Your task to perform on an android device: search for starred emails in the gmail app Image 0: 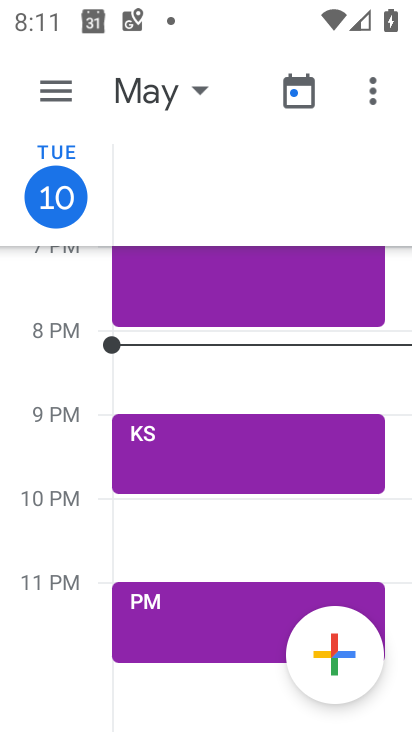
Step 0: drag from (288, 566) to (286, 410)
Your task to perform on an android device: search for starred emails in the gmail app Image 1: 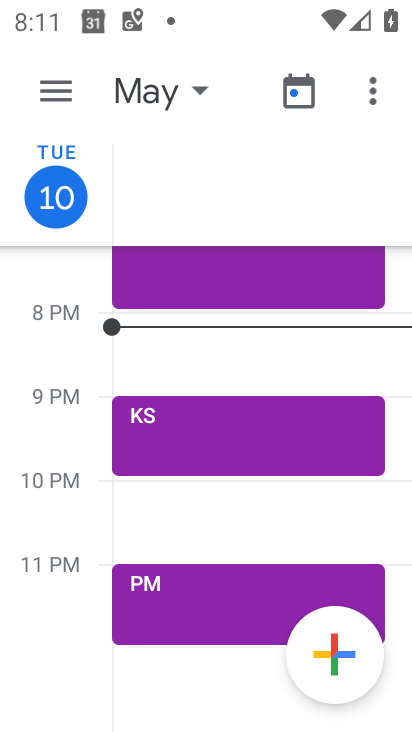
Step 1: press home button
Your task to perform on an android device: search for starred emails in the gmail app Image 2: 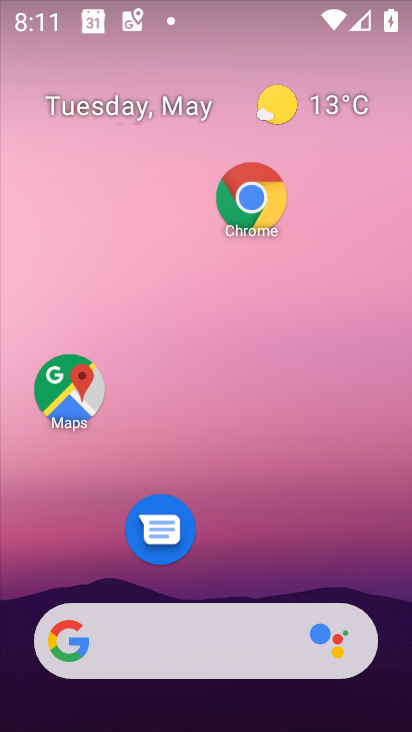
Step 2: drag from (273, 543) to (288, 128)
Your task to perform on an android device: search for starred emails in the gmail app Image 3: 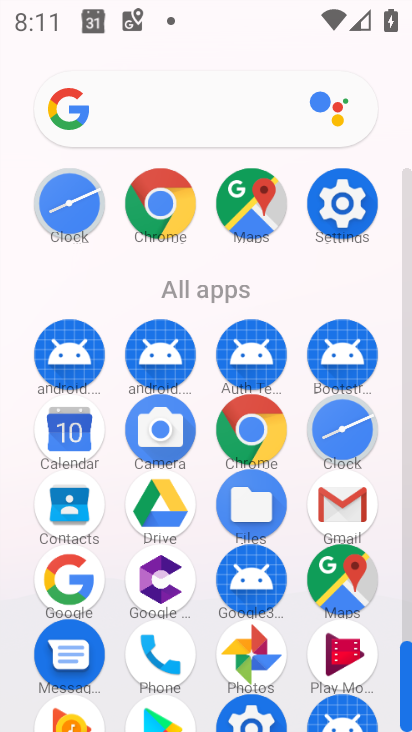
Step 3: click (323, 497)
Your task to perform on an android device: search for starred emails in the gmail app Image 4: 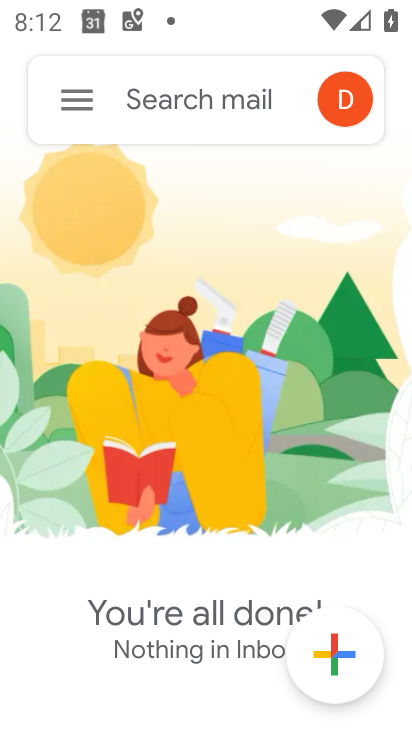
Step 4: click (64, 114)
Your task to perform on an android device: search for starred emails in the gmail app Image 5: 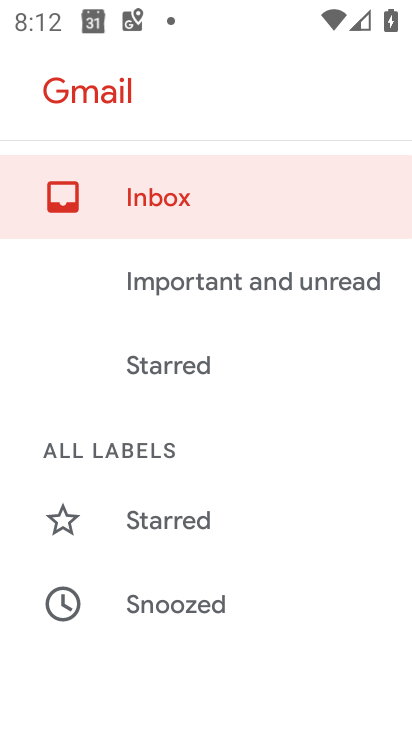
Step 5: click (158, 389)
Your task to perform on an android device: search for starred emails in the gmail app Image 6: 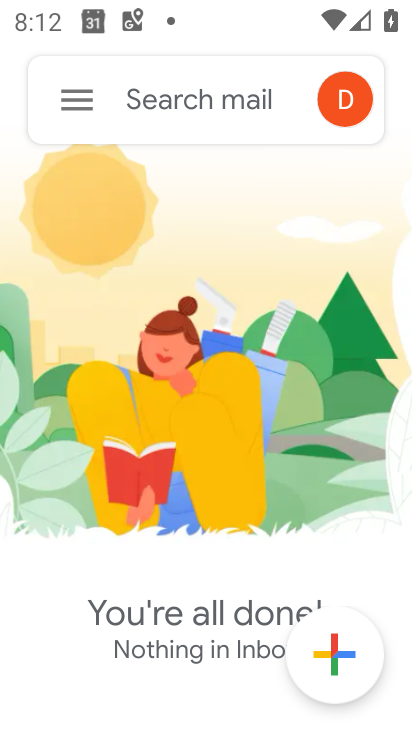
Step 6: task complete